Your task to perform on an android device: Do I have any events today? Image 0: 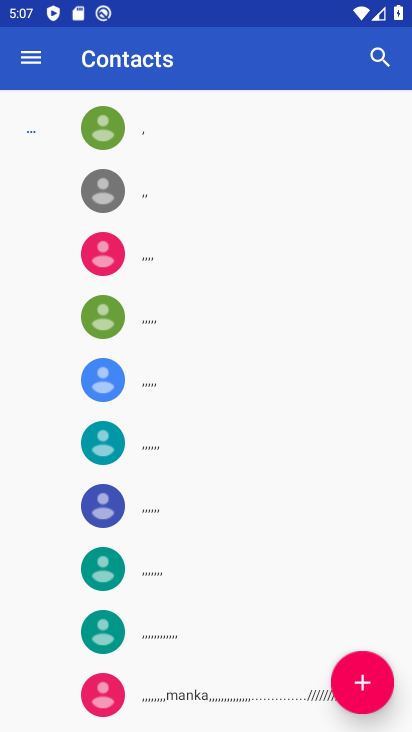
Step 0: press back button
Your task to perform on an android device: Do I have any events today? Image 1: 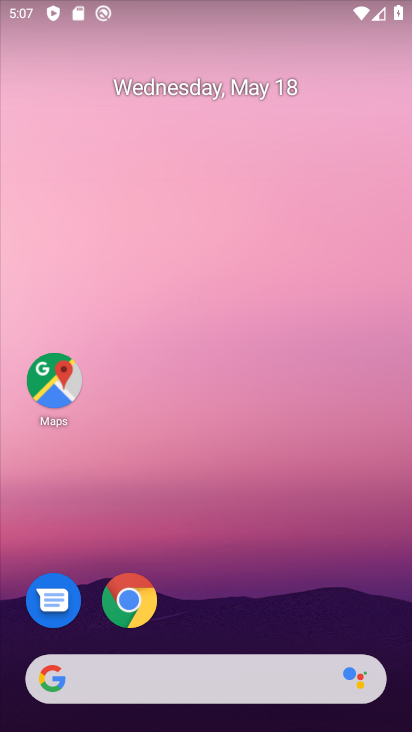
Step 1: drag from (284, 629) to (217, 124)
Your task to perform on an android device: Do I have any events today? Image 2: 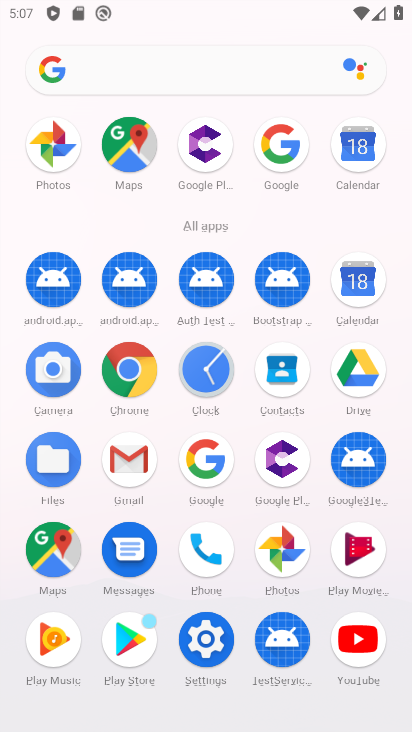
Step 2: click (357, 143)
Your task to perform on an android device: Do I have any events today? Image 3: 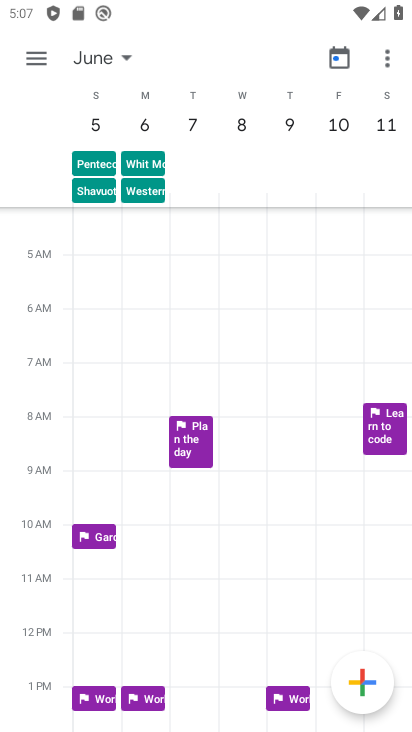
Step 3: click (338, 54)
Your task to perform on an android device: Do I have any events today? Image 4: 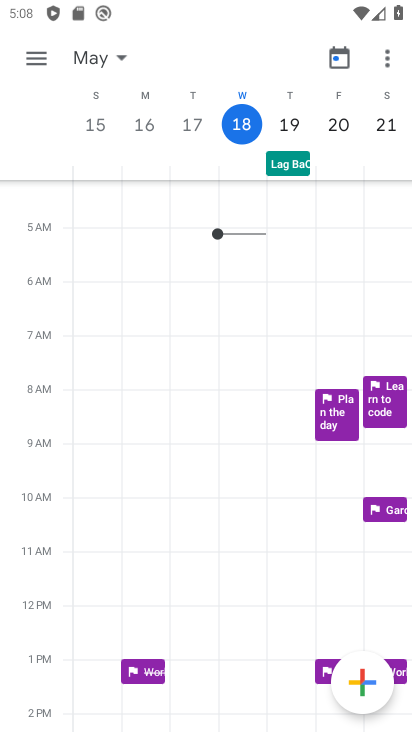
Step 4: click (120, 50)
Your task to perform on an android device: Do I have any events today? Image 5: 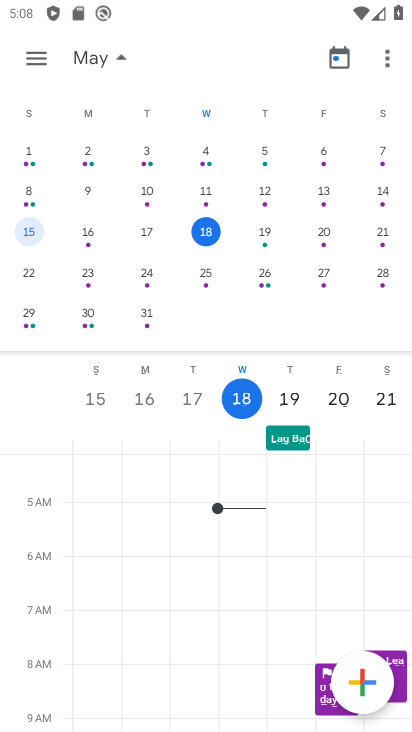
Step 5: click (33, 54)
Your task to perform on an android device: Do I have any events today? Image 6: 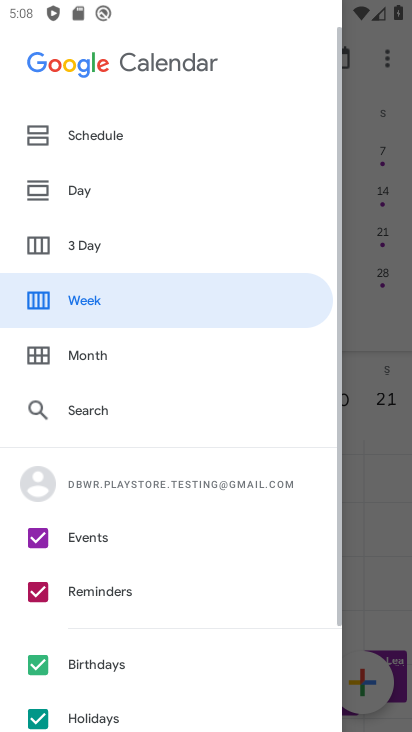
Step 6: click (96, 131)
Your task to perform on an android device: Do I have any events today? Image 7: 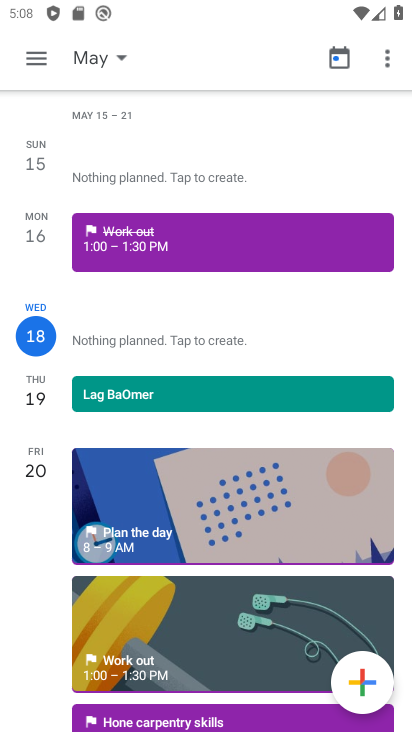
Step 7: task complete